Your task to perform on an android device: turn off location history Image 0: 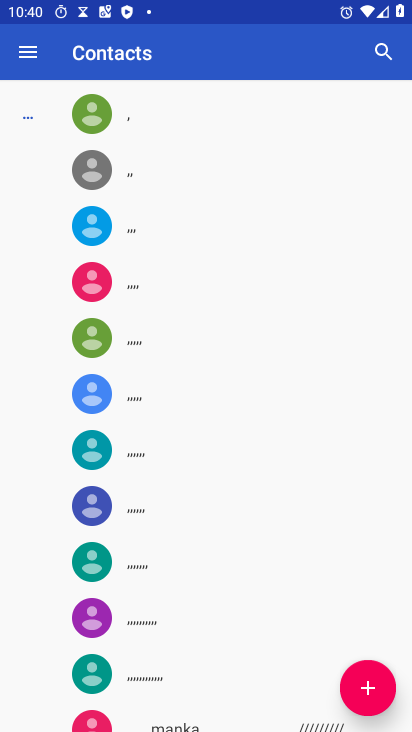
Step 0: press home button
Your task to perform on an android device: turn off location history Image 1: 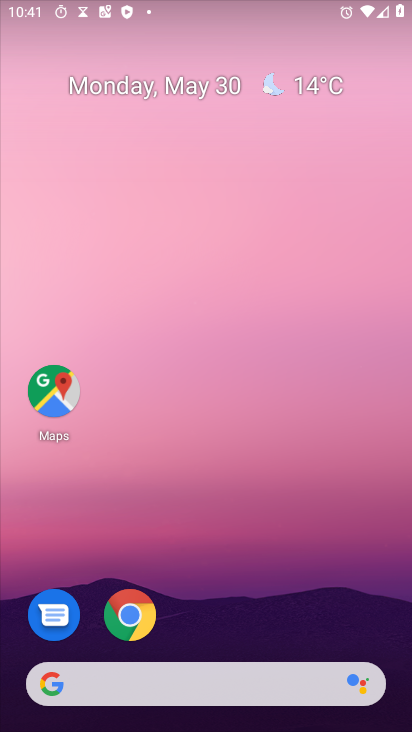
Step 1: drag from (335, 583) to (267, 0)
Your task to perform on an android device: turn off location history Image 2: 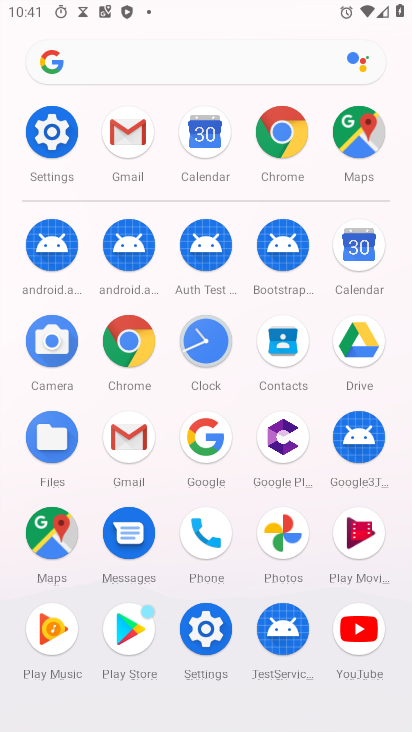
Step 2: click (58, 133)
Your task to perform on an android device: turn off location history Image 3: 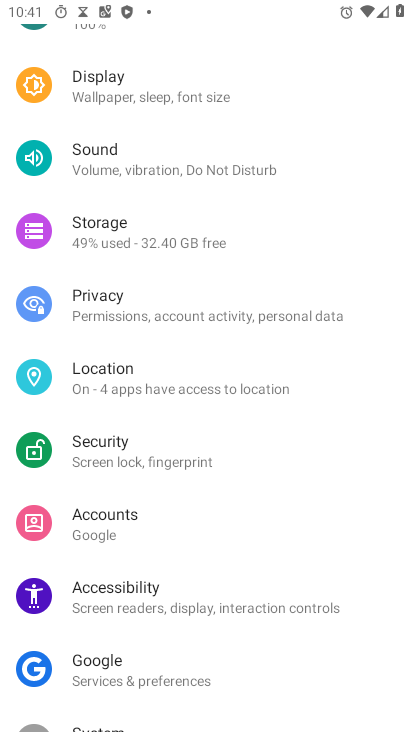
Step 3: click (125, 373)
Your task to perform on an android device: turn off location history Image 4: 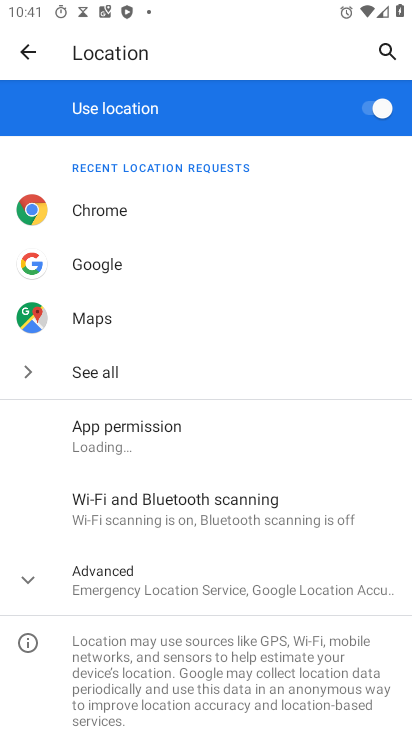
Step 4: drag from (148, 623) to (261, 273)
Your task to perform on an android device: turn off location history Image 5: 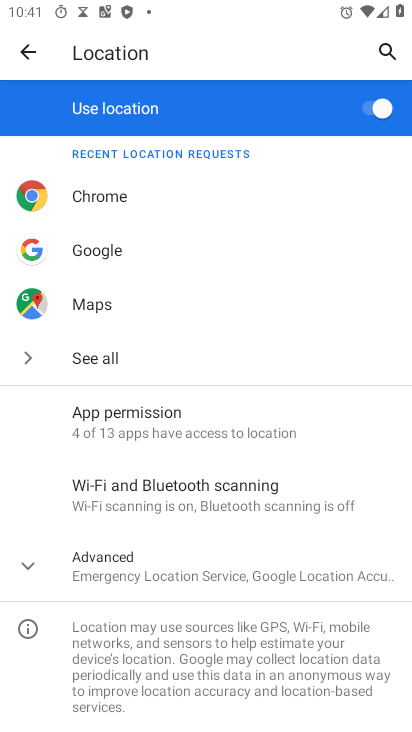
Step 5: click (149, 587)
Your task to perform on an android device: turn off location history Image 6: 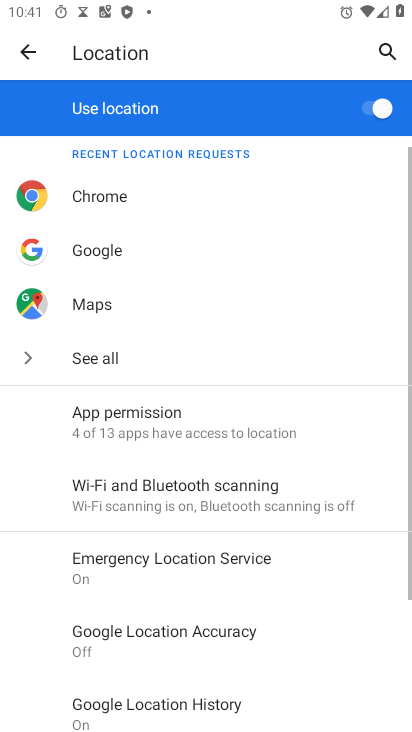
Step 6: drag from (164, 605) to (257, 242)
Your task to perform on an android device: turn off location history Image 7: 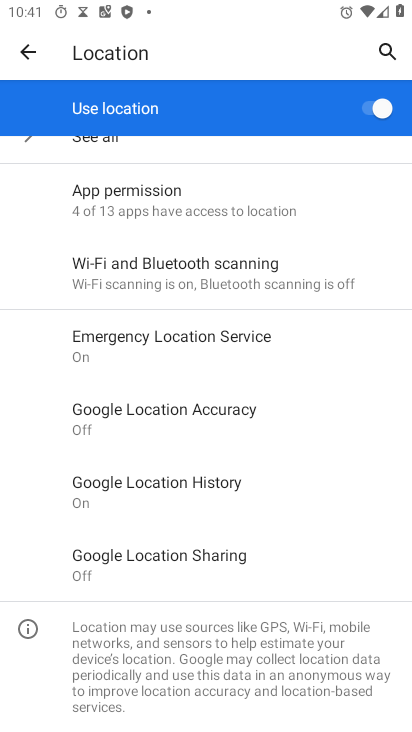
Step 7: click (214, 488)
Your task to perform on an android device: turn off location history Image 8: 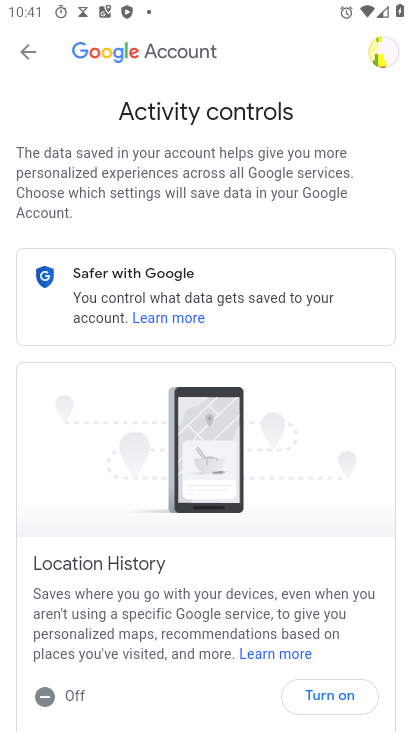
Step 8: task complete